Your task to perform on an android device: turn on the 12-hour format for clock Image 0: 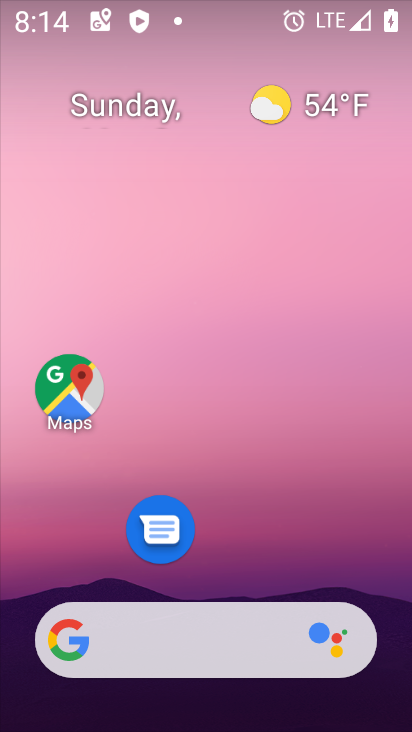
Step 0: drag from (257, 582) to (273, 127)
Your task to perform on an android device: turn on the 12-hour format for clock Image 1: 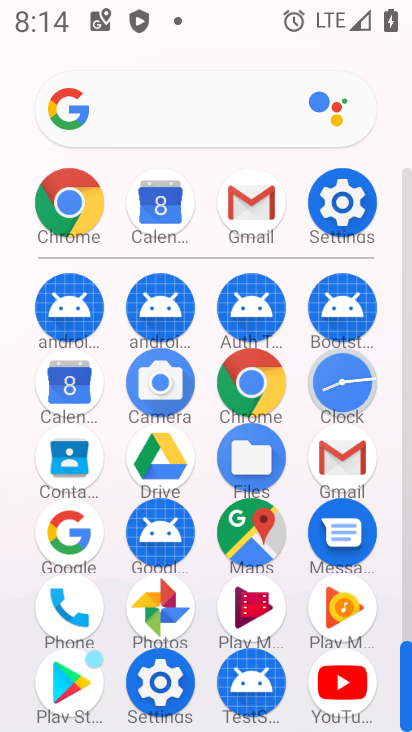
Step 1: click (342, 387)
Your task to perform on an android device: turn on the 12-hour format for clock Image 2: 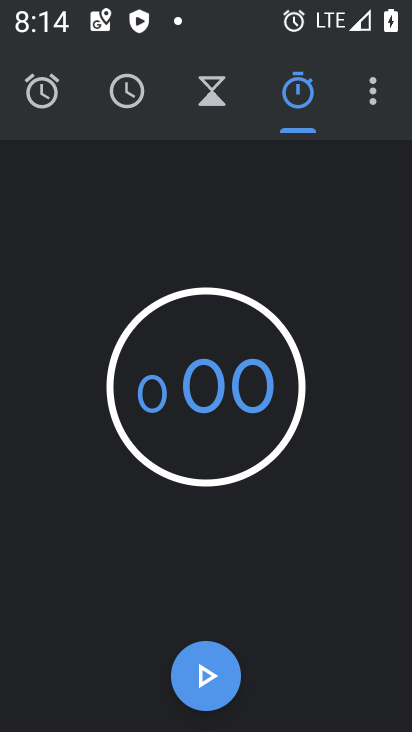
Step 2: press home button
Your task to perform on an android device: turn on the 12-hour format for clock Image 3: 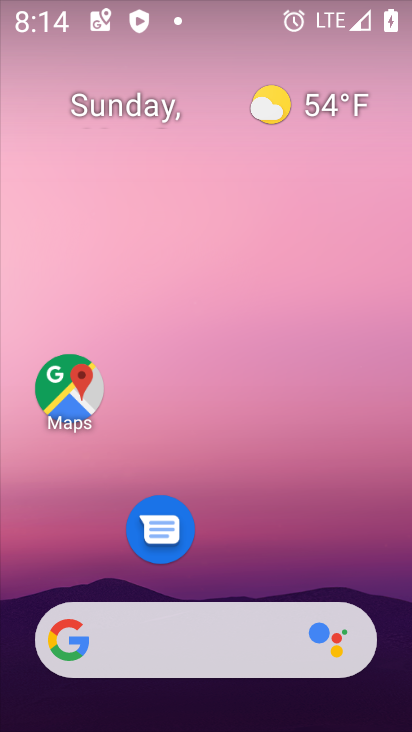
Step 3: drag from (283, 600) to (238, 31)
Your task to perform on an android device: turn on the 12-hour format for clock Image 4: 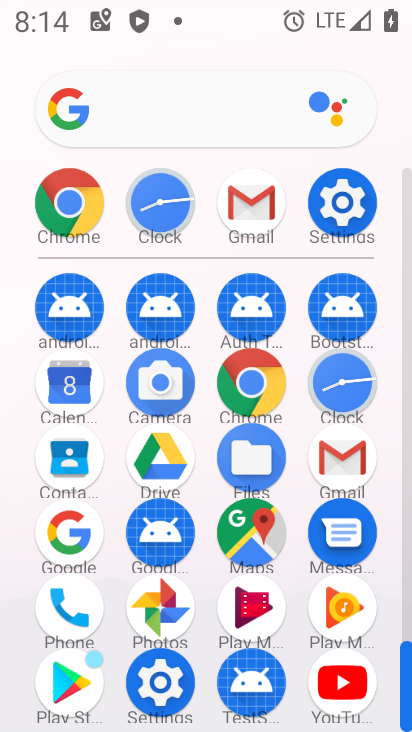
Step 4: click (351, 202)
Your task to perform on an android device: turn on the 12-hour format for clock Image 5: 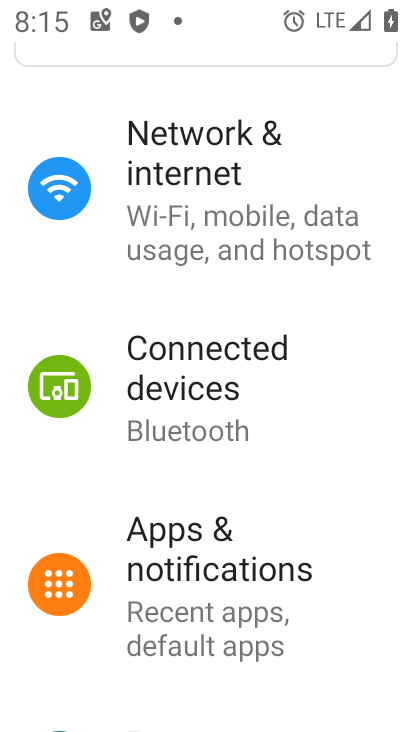
Step 5: drag from (240, 594) to (265, 66)
Your task to perform on an android device: turn on the 12-hour format for clock Image 6: 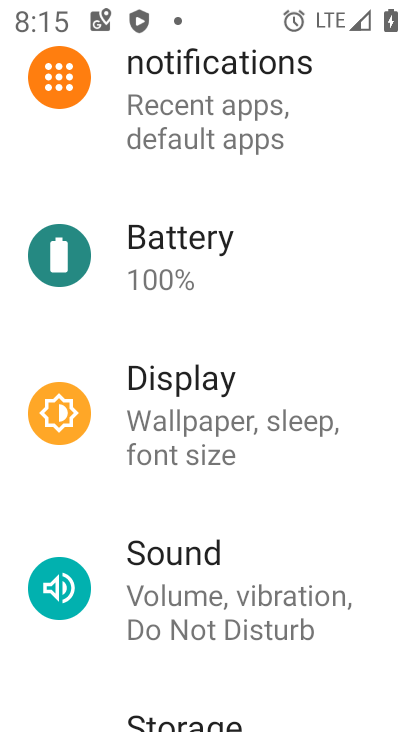
Step 6: drag from (251, 531) to (267, 84)
Your task to perform on an android device: turn on the 12-hour format for clock Image 7: 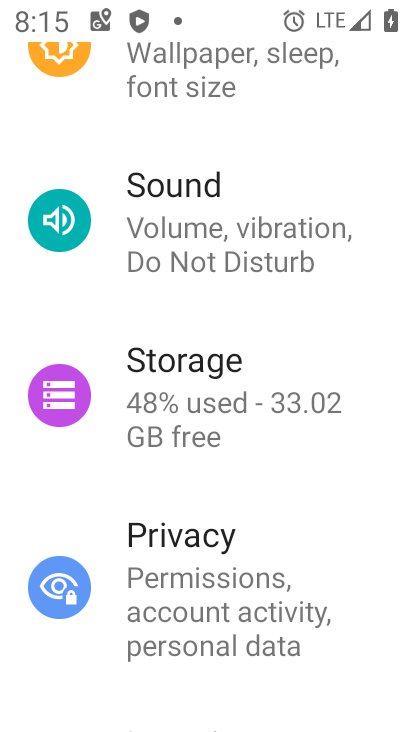
Step 7: drag from (210, 589) to (260, 83)
Your task to perform on an android device: turn on the 12-hour format for clock Image 8: 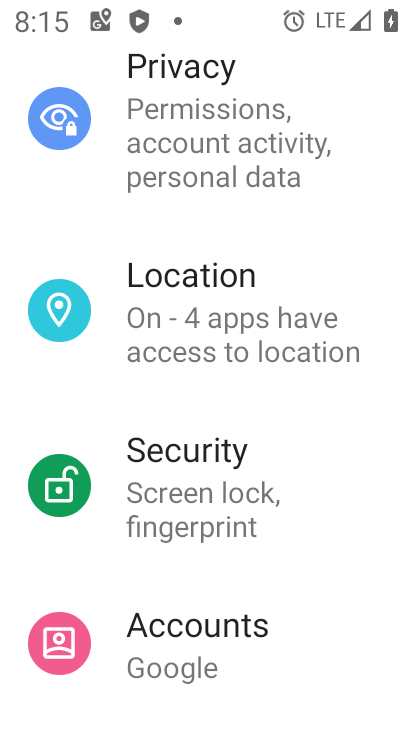
Step 8: drag from (229, 630) to (305, 163)
Your task to perform on an android device: turn on the 12-hour format for clock Image 9: 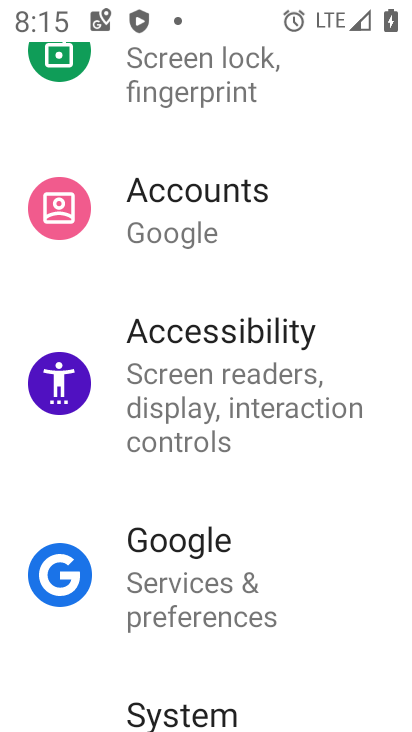
Step 9: drag from (251, 631) to (282, 381)
Your task to perform on an android device: turn on the 12-hour format for clock Image 10: 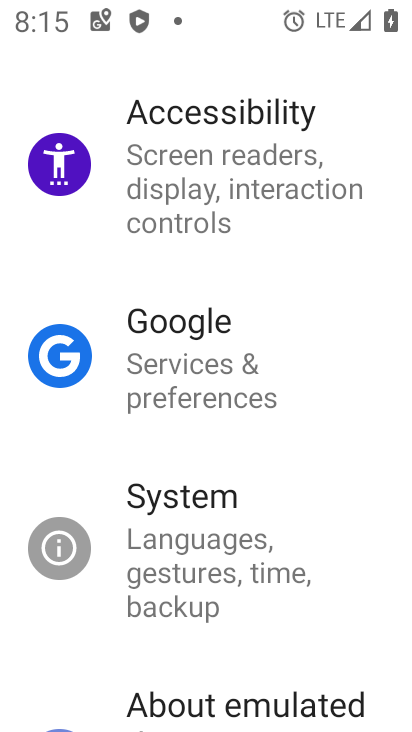
Step 10: click (191, 545)
Your task to perform on an android device: turn on the 12-hour format for clock Image 11: 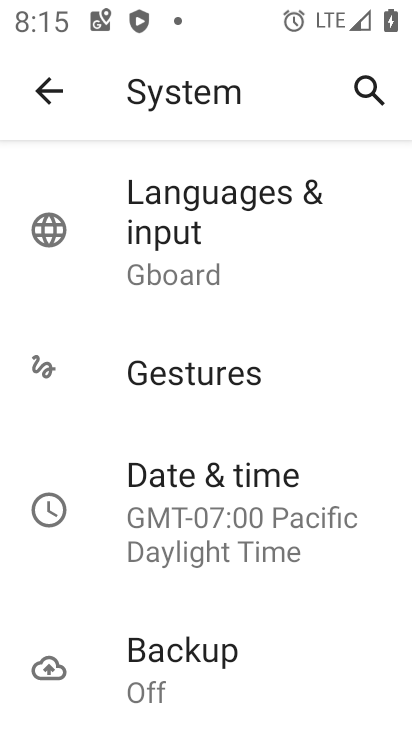
Step 11: click (246, 505)
Your task to perform on an android device: turn on the 12-hour format for clock Image 12: 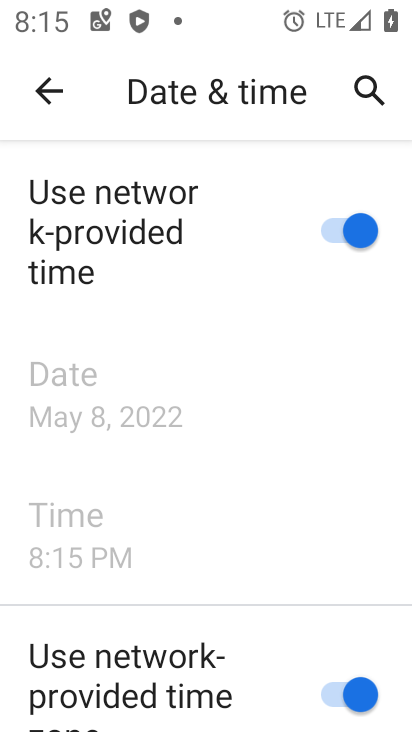
Step 12: task complete